Your task to perform on an android device: Open the calendar and show me this week's events? Image 0: 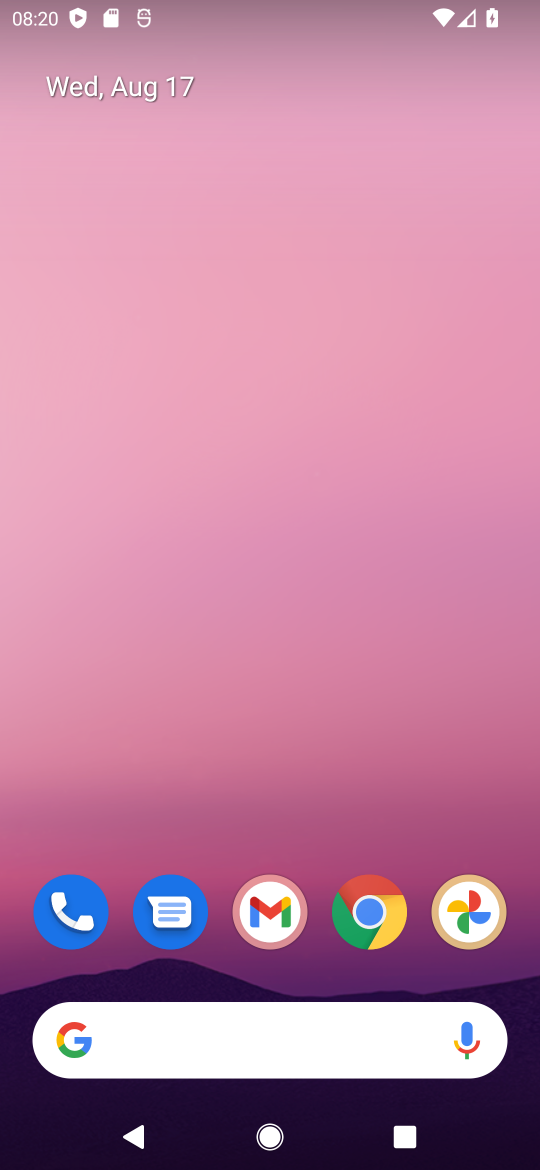
Step 0: drag from (335, 502) to (325, 175)
Your task to perform on an android device: Open the calendar and show me this week's events? Image 1: 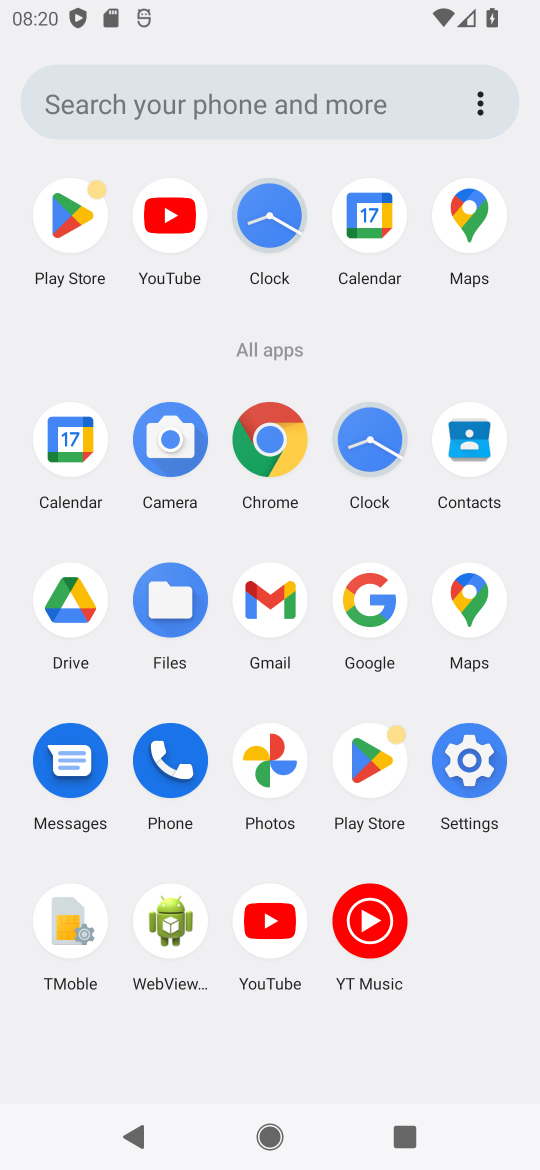
Step 1: click (373, 208)
Your task to perform on an android device: Open the calendar and show me this week's events? Image 2: 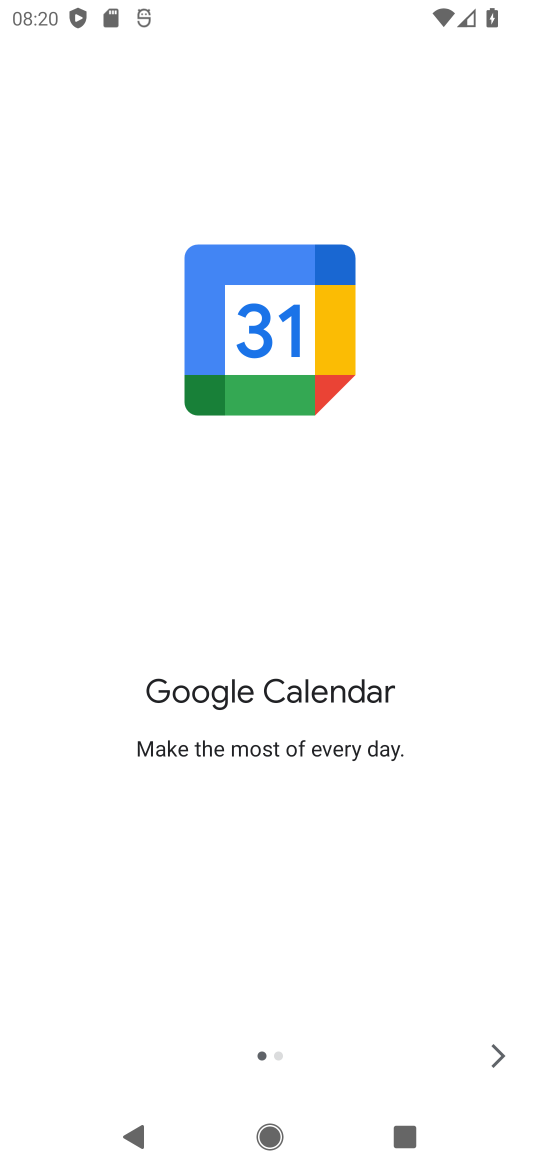
Step 2: click (490, 1064)
Your task to perform on an android device: Open the calendar and show me this week's events? Image 3: 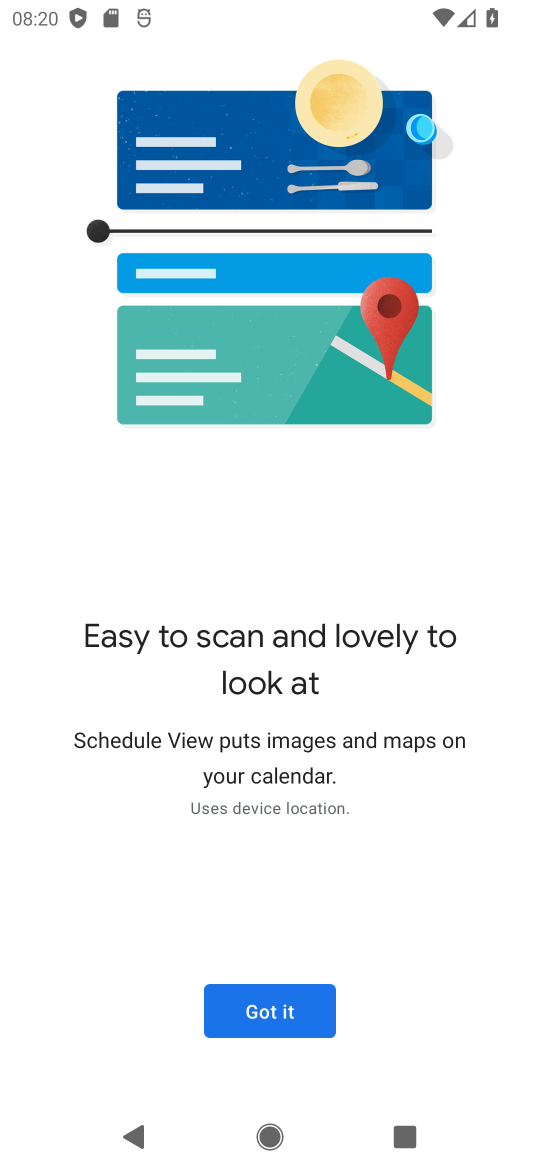
Step 3: click (311, 1002)
Your task to perform on an android device: Open the calendar and show me this week's events? Image 4: 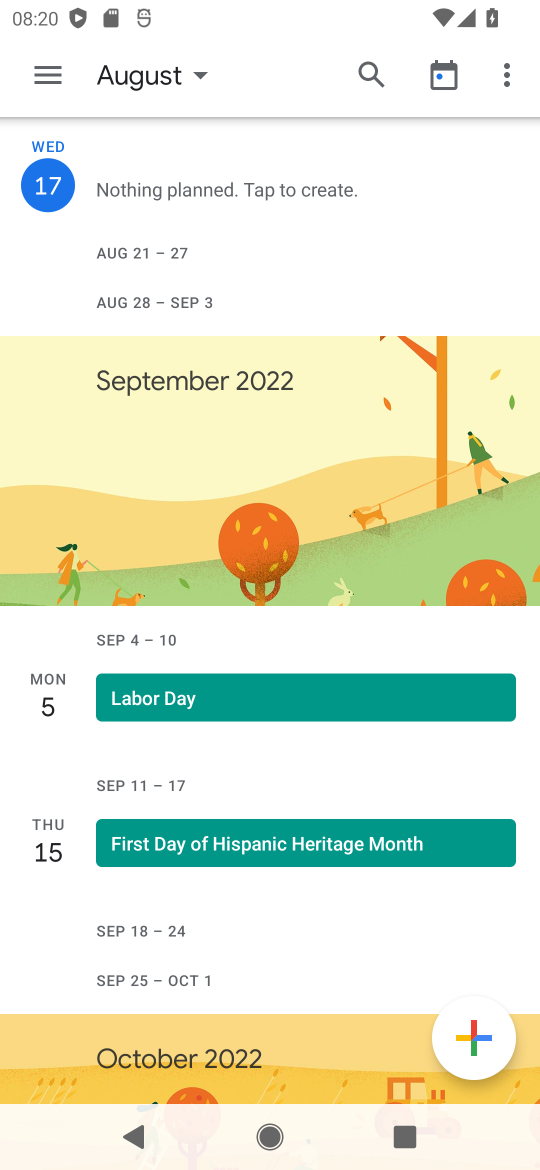
Step 4: click (126, 73)
Your task to perform on an android device: Open the calendar and show me this week's events? Image 5: 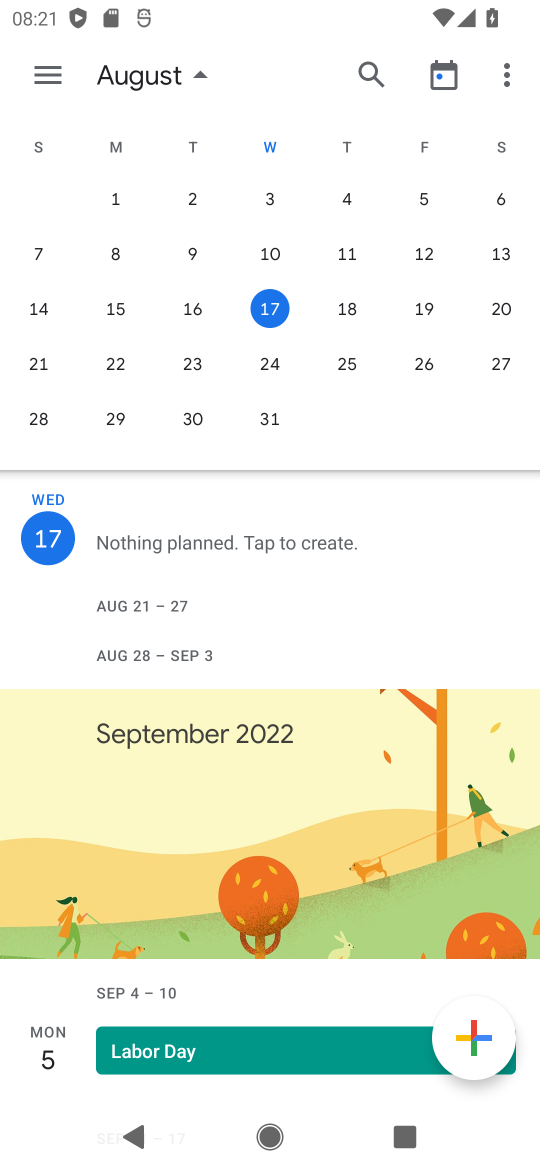
Step 5: click (348, 305)
Your task to perform on an android device: Open the calendar and show me this week's events? Image 6: 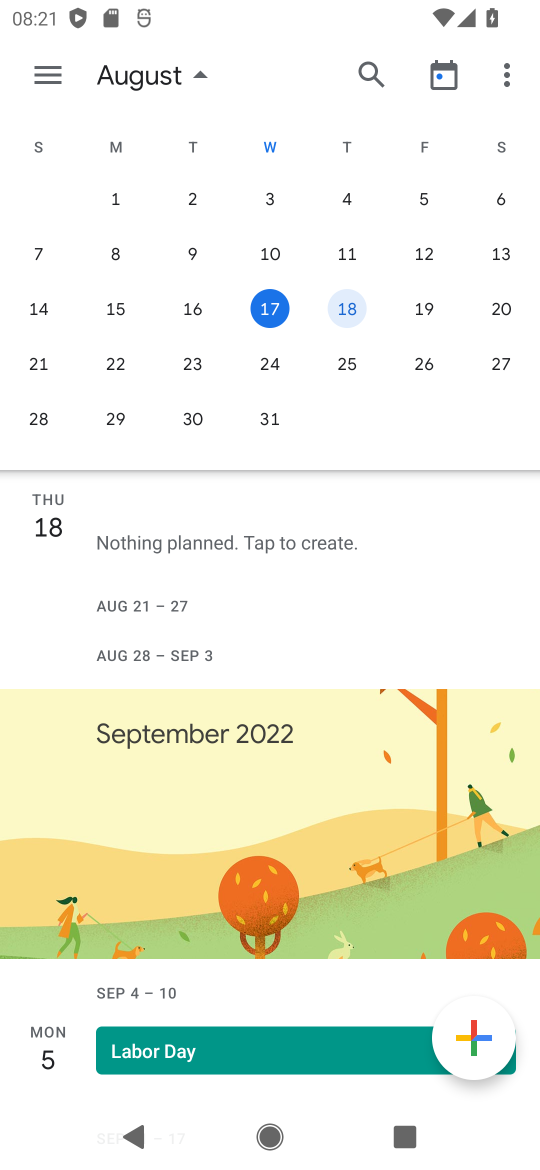
Step 6: click (431, 313)
Your task to perform on an android device: Open the calendar and show me this week's events? Image 7: 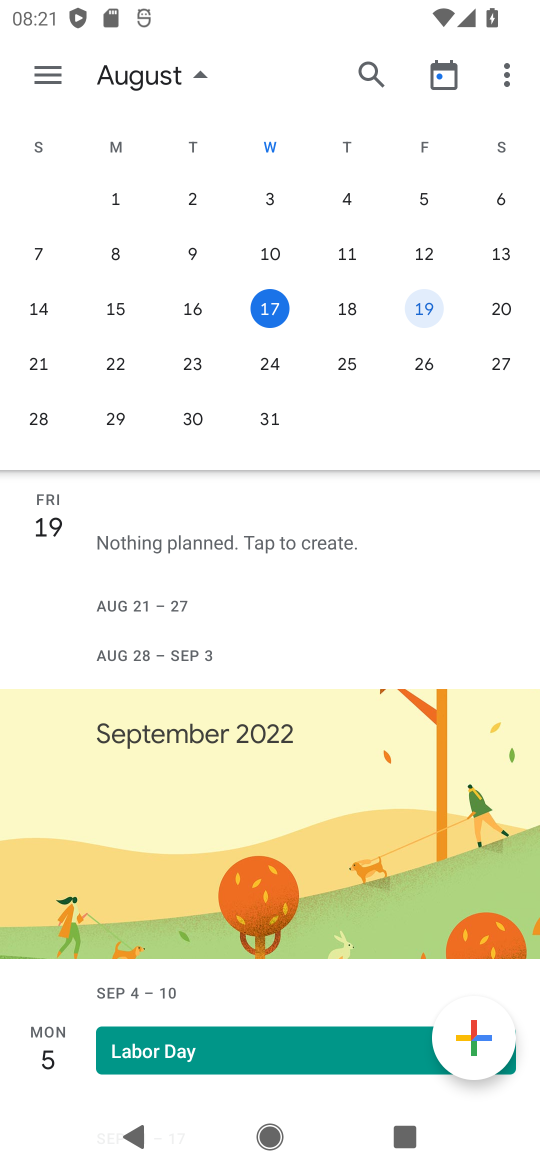
Step 7: click (501, 307)
Your task to perform on an android device: Open the calendar and show me this week's events? Image 8: 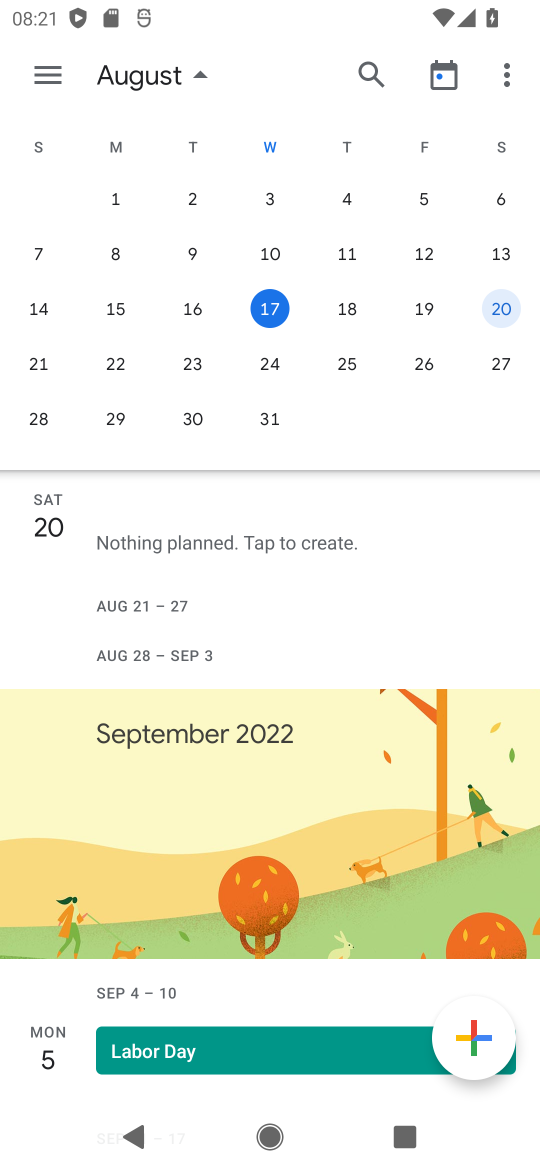
Step 8: click (53, 67)
Your task to perform on an android device: Open the calendar and show me this week's events? Image 9: 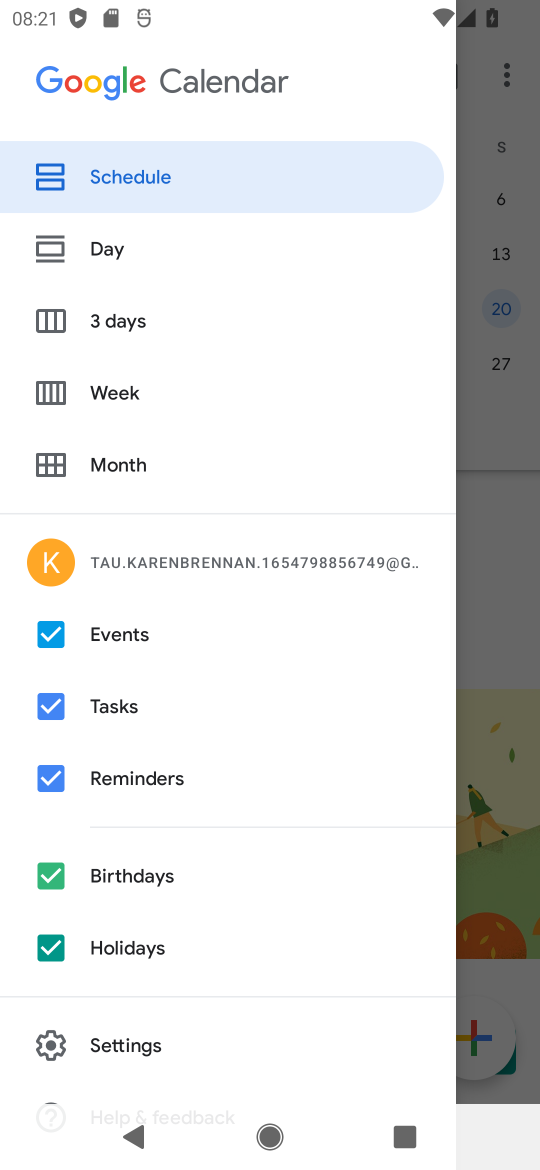
Step 9: click (118, 380)
Your task to perform on an android device: Open the calendar and show me this week's events? Image 10: 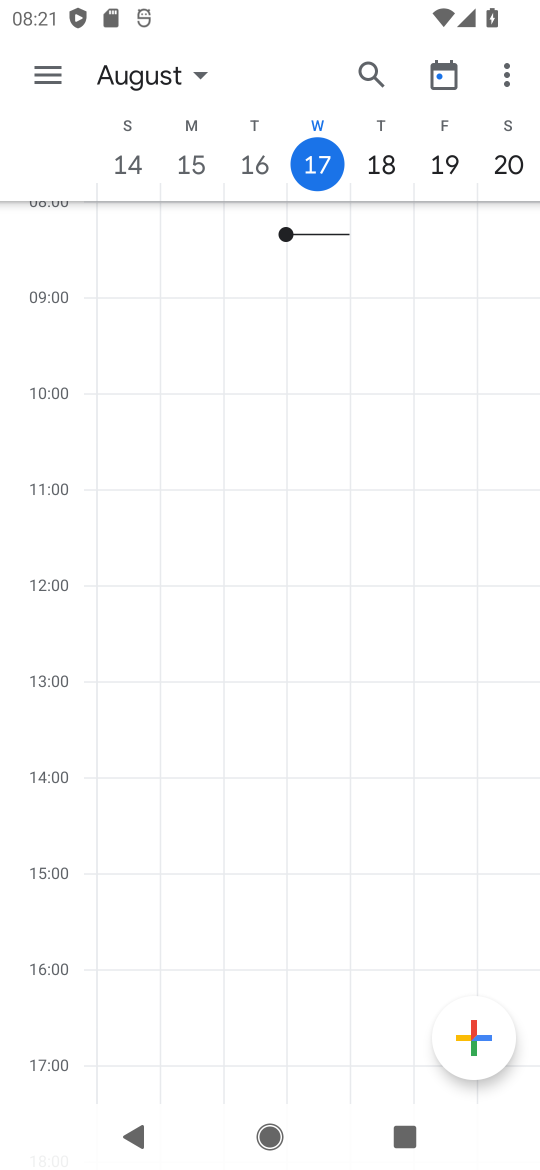
Step 10: task complete